Your task to perform on an android device: Open settings Image 0: 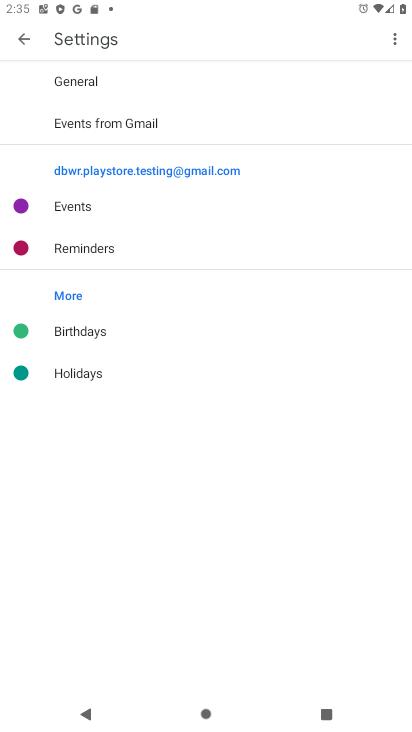
Step 0: press home button
Your task to perform on an android device: Open settings Image 1: 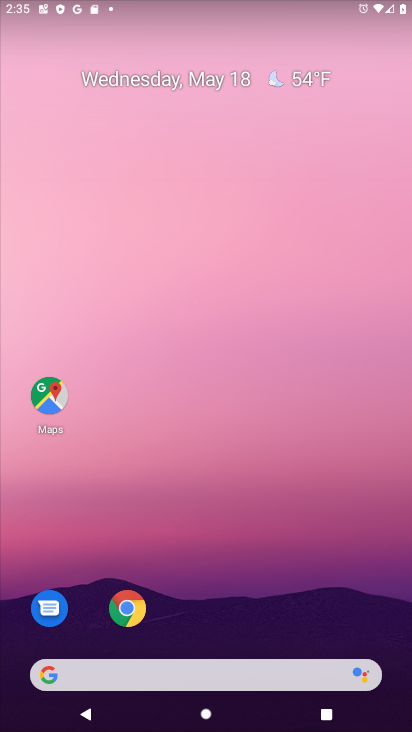
Step 1: drag from (275, 623) to (274, 83)
Your task to perform on an android device: Open settings Image 2: 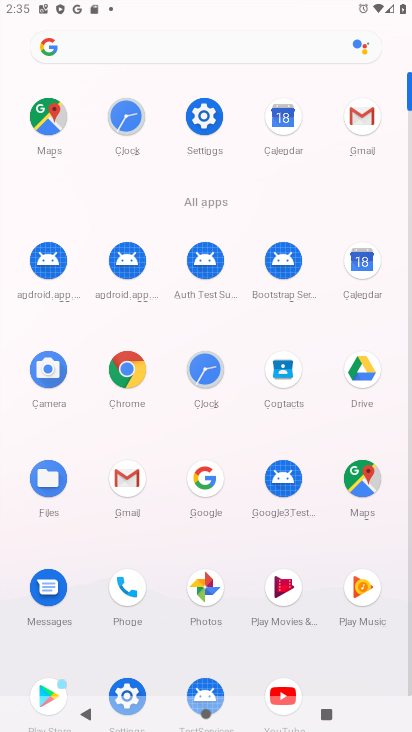
Step 2: click (201, 122)
Your task to perform on an android device: Open settings Image 3: 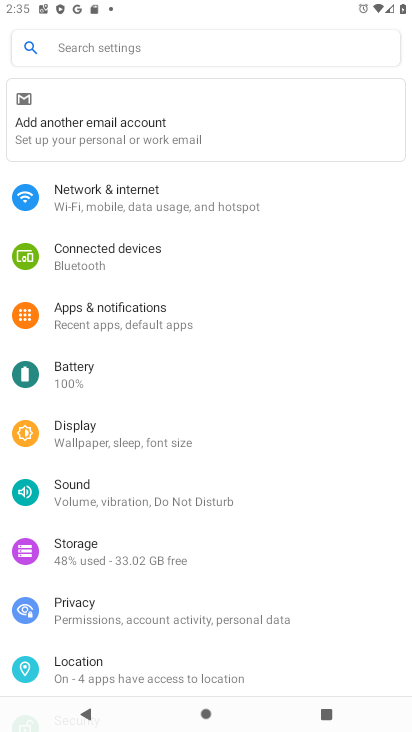
Step 3: task complete